Your task to perform on an android device: Open privacy settings Image 0: 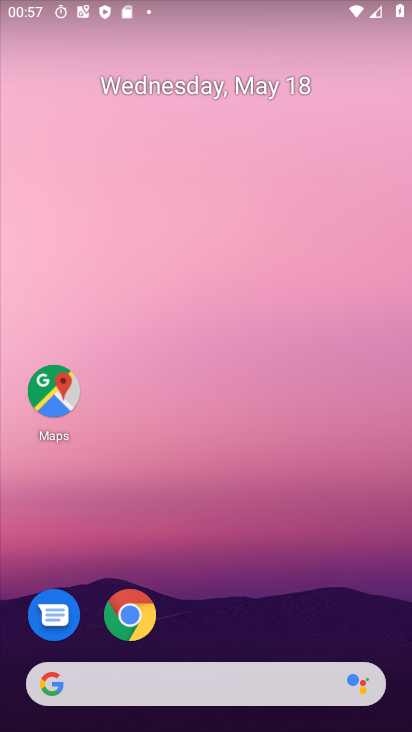
Step 0: drag from (228, 625) to (240, 170)
Your task to perform on an android device: Open privacy settings Image 1: 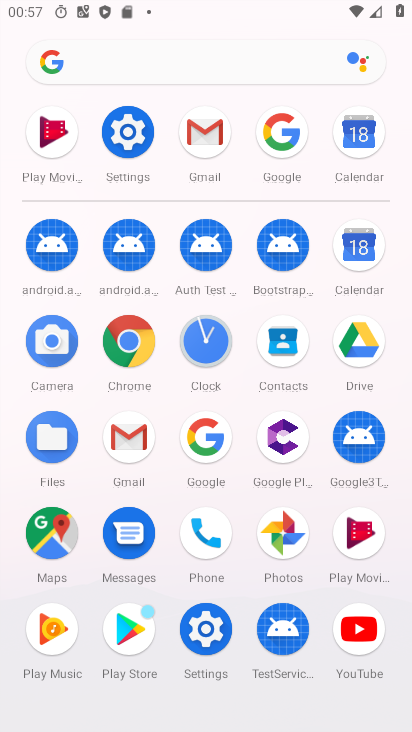
Step 1: click (120, 125)
Your task to perform on an android device: Open privacy settings Image 2: 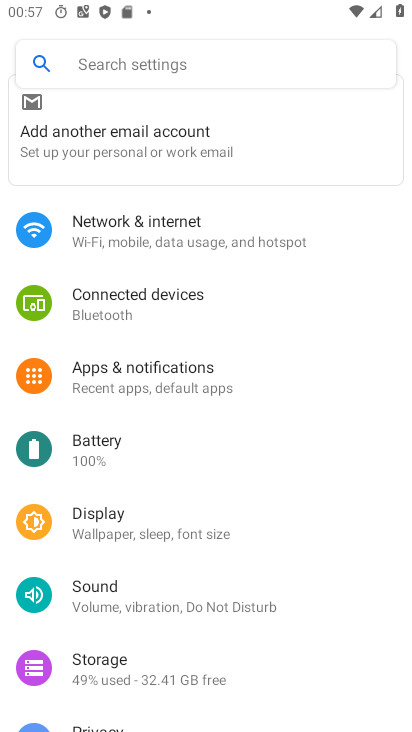
Step 2: drag from (186, 625) to (223, 307)
Your task to perform on an android device: Open privacy settings Image 3: 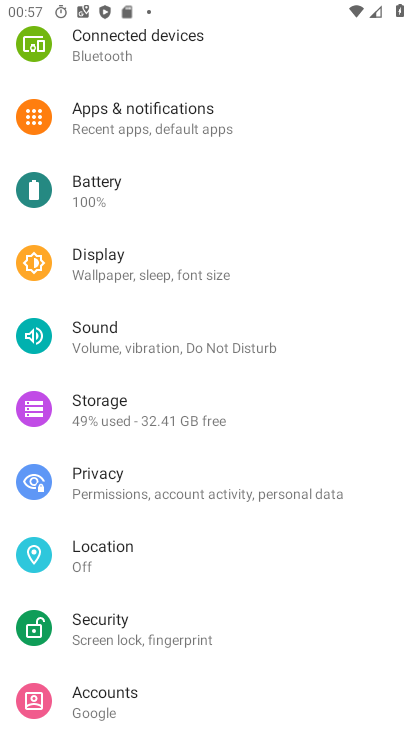
Step 3: click (142, 492)
Your task to perform on an android device: Open privacy settings Image 4: 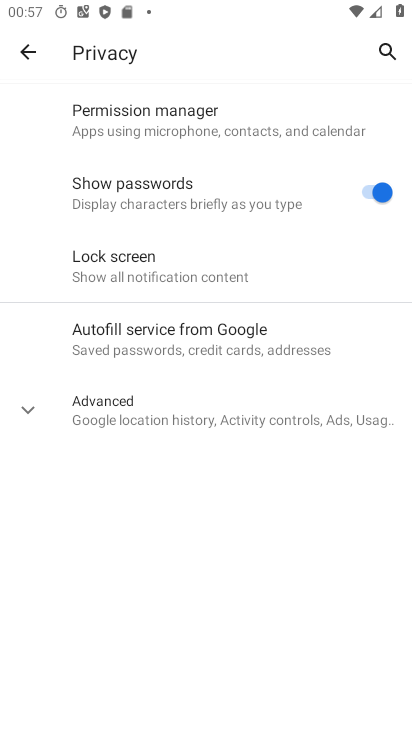
Step 4: task complete